Your task to perform on an android device: turn off priority inbox in the gmail app Image 0: 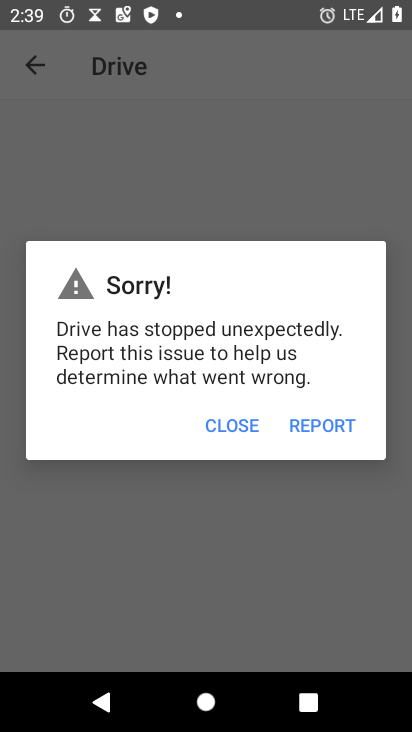
Step 0: press home button
Your task to perform on an android device: turn off priority inbox in the gmail app Image 1: 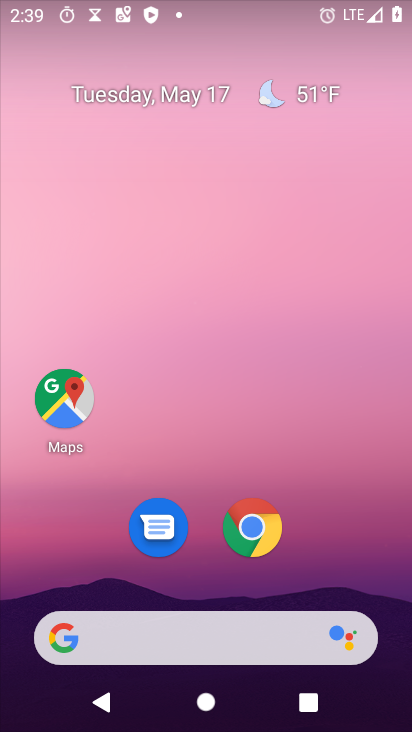
Step 1: drag from (327, 542) to (218, 85)
Your task to perform on an android device: turn off priority inbox in the gmail app Image 2: 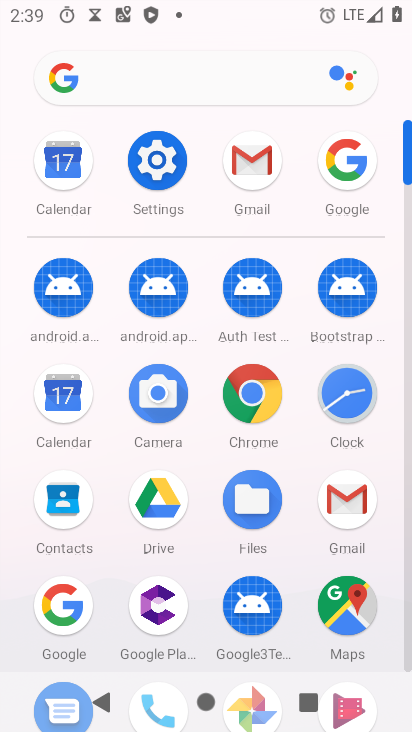
Step 2: click (252, 161)
Your task to perform on an android device: turn off priority inbox in the gmail app Image 3: 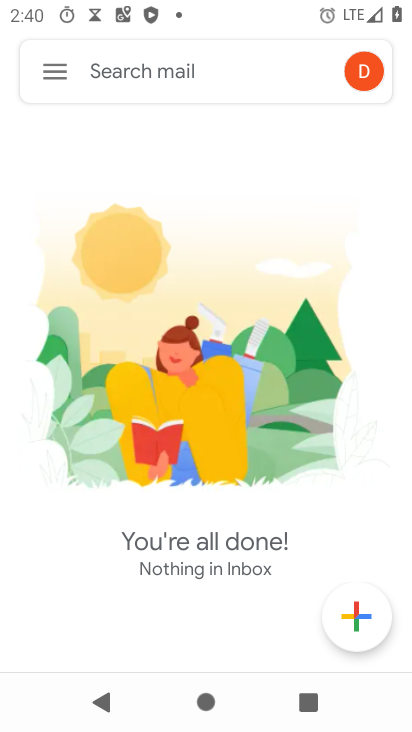
Step 3: click (55, 72)
Your task to perform on an android device: turn off priority inbox in the gmail app Image 4: 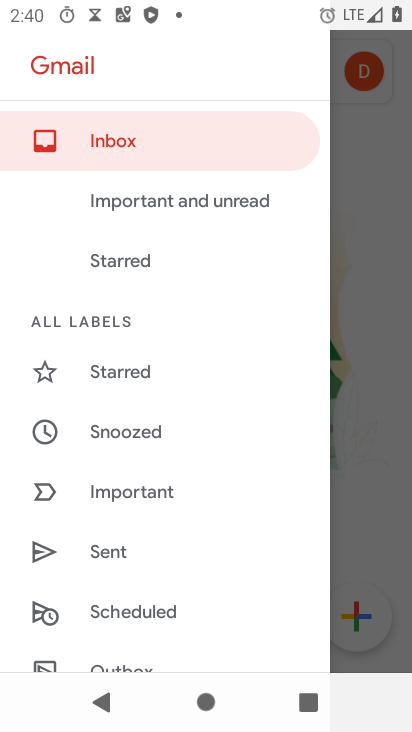
Step 4: drag from (118, 409) to (175, 328)
Your task to perform on an android device: turn off priority inbox in the gmail app Image 5: 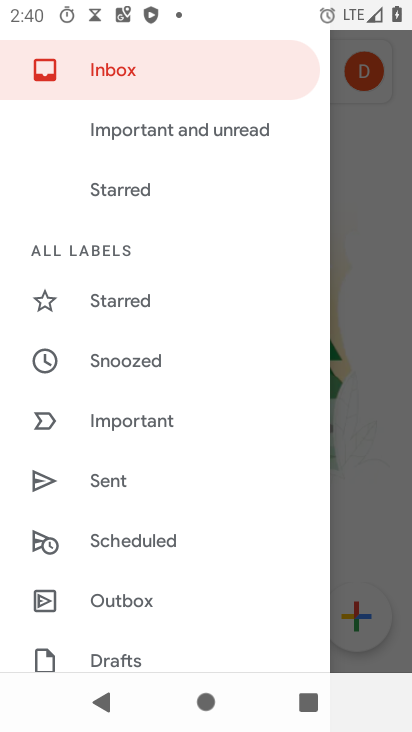
Step 5: drag from (125, 443) to (138, 359)
Your task to perform on an android device: turn off priority inbox in the gmail app Image 6: 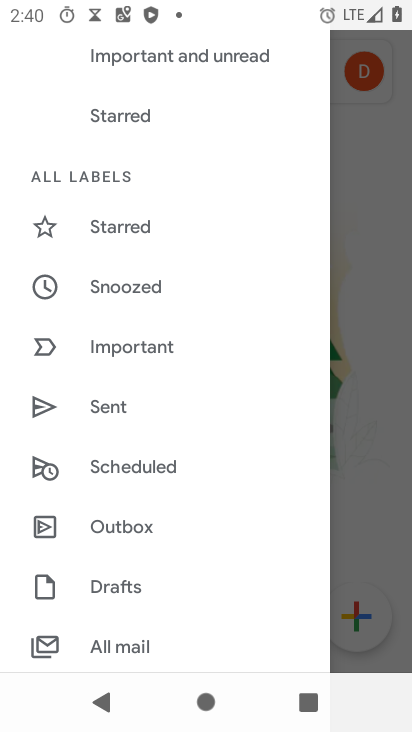
Step 6: drag from (117, 426) to (147, 336)
Your task to perform on an android device: turn off priority inbox in the gmail app Image 7: 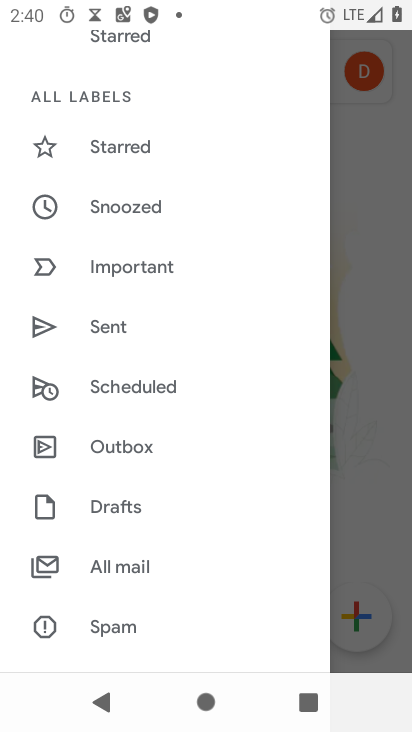
Step 7: drag from (108, 467) to (155, 374)
Your task to perform on an android device: turn off priority inbox in the gmail app Image 8: 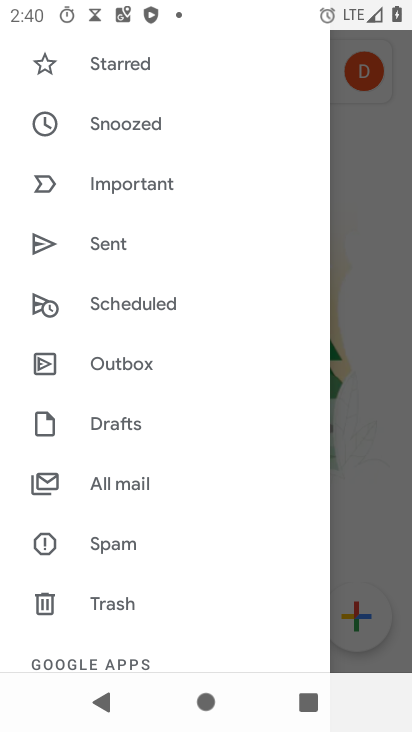
Step 8: drag from (147, 518) to (172, 447)
Your task to perform on an android device: turn off priority inbox in the gmail app Image 9: 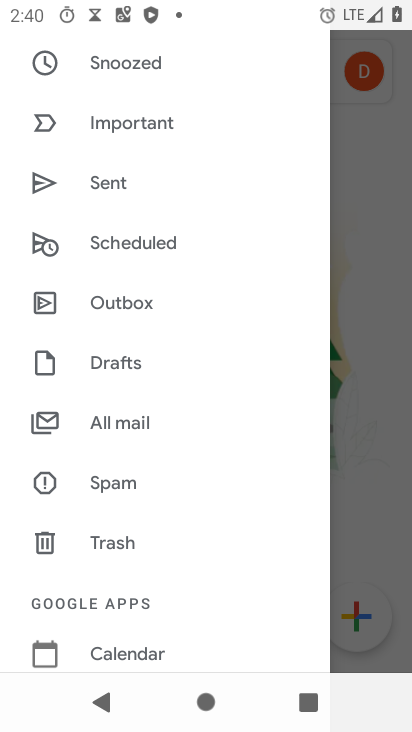
Step 9: drag from (104, 565) to (153, 470)
Your task to perform on an android device: turn off priority inbox in the gmail app Image 10: 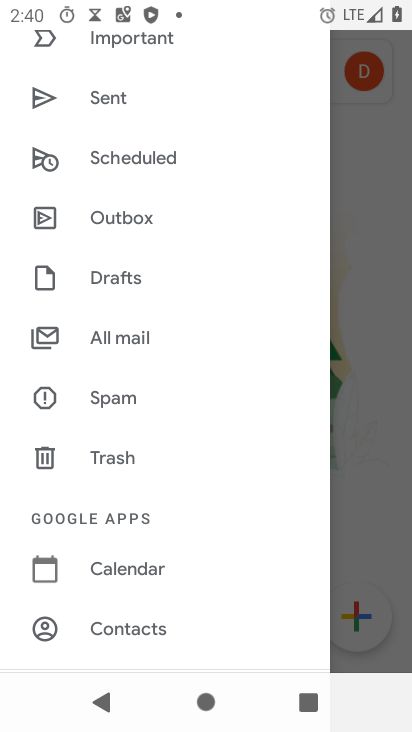
Step 10: drag from (105, 590) to (176, 477)
Your task to perform on an android device: turn off priority inbox in the gmail app Image 11: 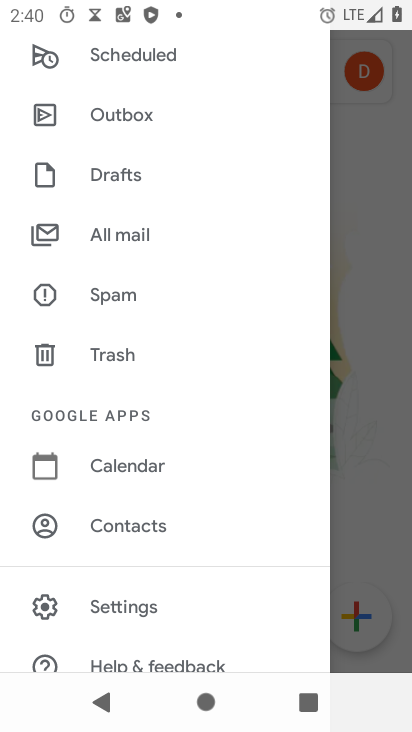
Step 11: click (120, 607)
Your task to perform on an android device: turn off priority inbox in the gmail app Image 12: 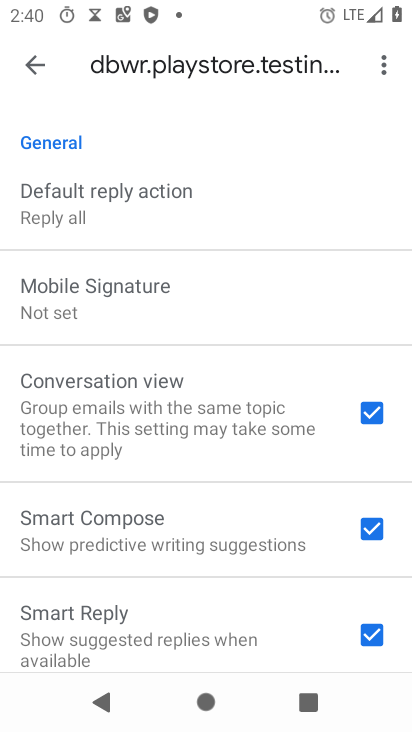
Step 12: drag from (151, 457) to (258, 506)
Your task to perform on an android device: turn off priority inbox in the gmail app Image 13: 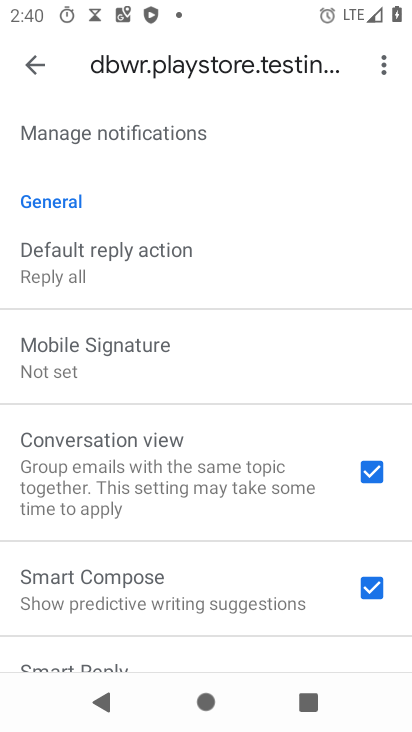
Step 13: drag from (198, 248) to (208, 394)
Your task to perform on an android device: turn off priority inbox in the gmail app Image 14: 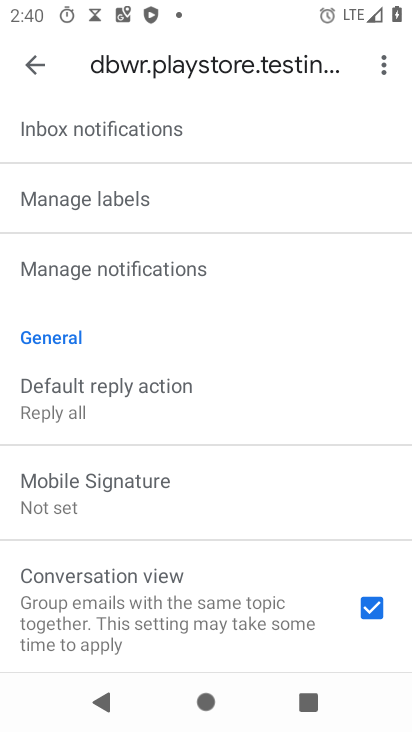
Step 14: drag from (217, 210) to (199, 328)
Your task to perform on an android device: turn off priority inbox in the gmail app Image 15: 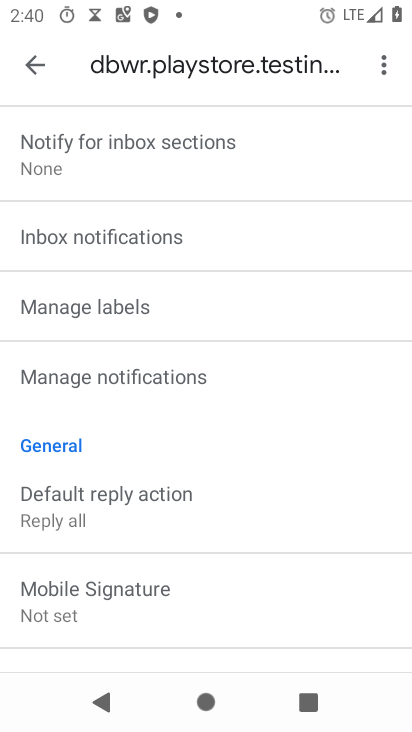
Step 15: drag from (231, 223) to (238, 334)
Your task to perform on an android device: turn off priority inbox in the gmail app Image 16: 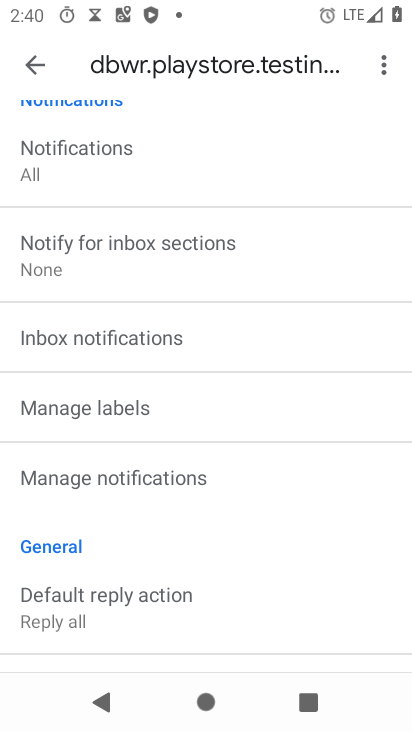
Step 16: drag from (236, 169) to (250, 308)
Your task to perform on an android device: turn off priority inbox in the gmail app Image 17: 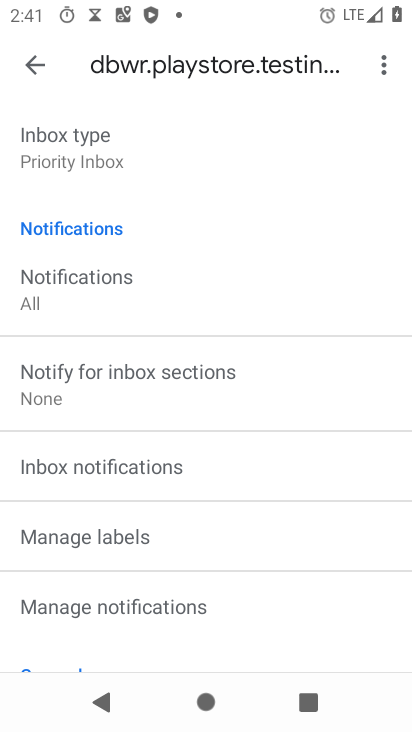
Step 17: click (87, 163)
Your task to perform on an android device: turn off priority inbox in the gmail app Image 18: 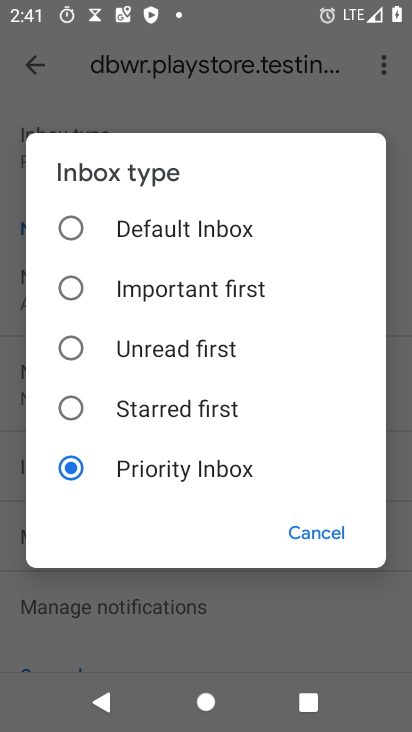
Step 18: click (63, 227)
Your task to perform on an android device: turn off priority inbox in the gmail app Image 19: 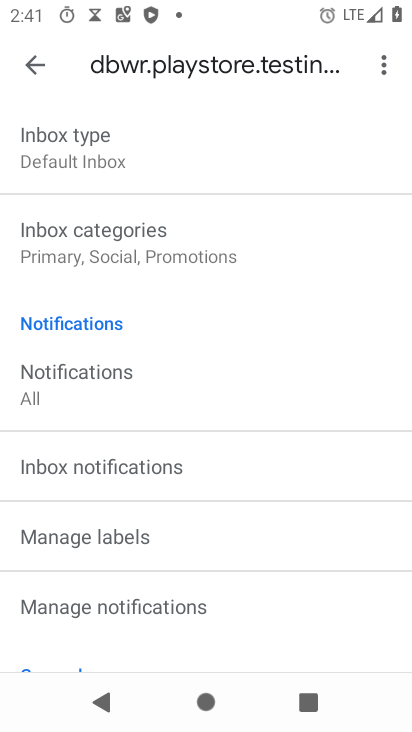
Step 19: task complete